Your task to perform on an android device: toggle notifications settings in the gmail app Image 0: 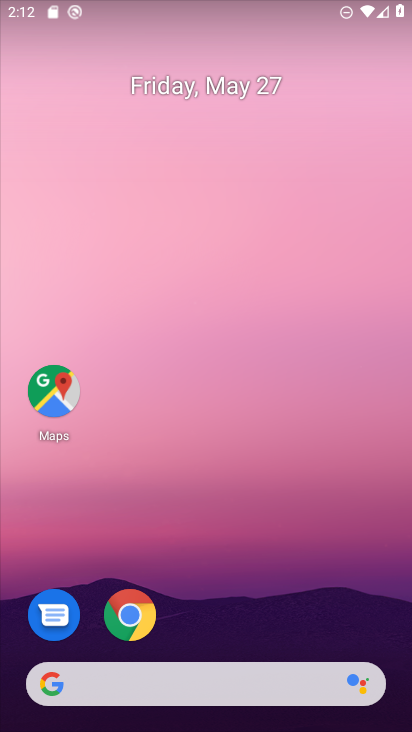
Step 0: drag from (181, 544) to (247, 183)
Your task to perform on an android device: toggle notifications settings in the gmail app Image 1: 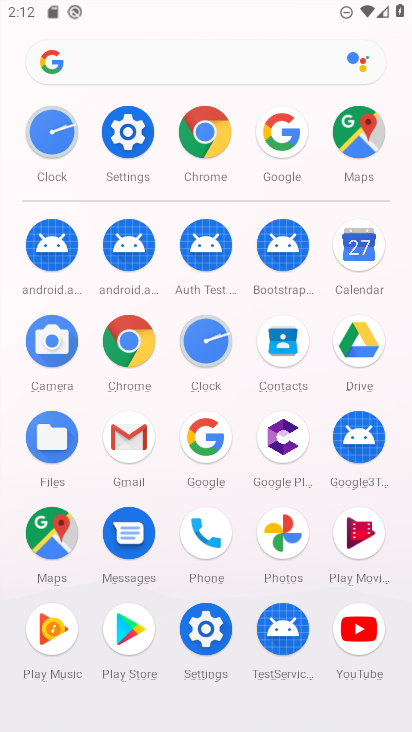
Step 1: click (120, 448)
Your task to perform on an android device: toggle notifications settings in the gmail app Image 2: 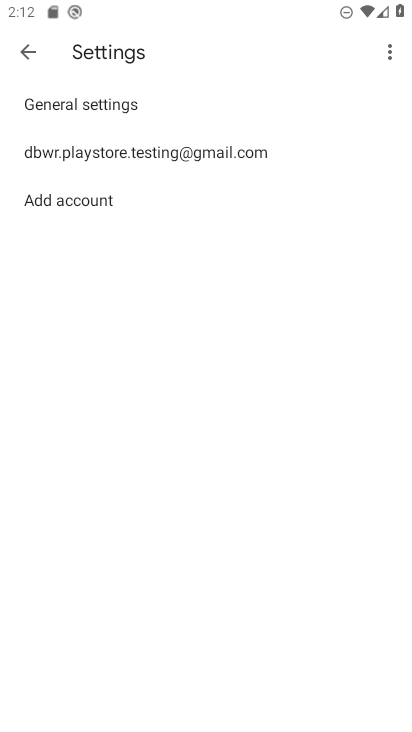
Step 2: click (179, 152)
Your task to perform on an android device: toggle notifications settings in the gmail app Image 3: 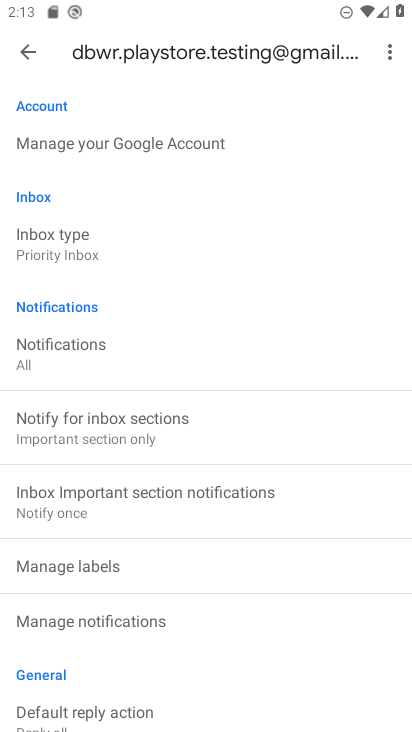
Step 3: click (166, 626)
Your task to perform on an android device: toggle notifications settings in the gmail app Image 4: 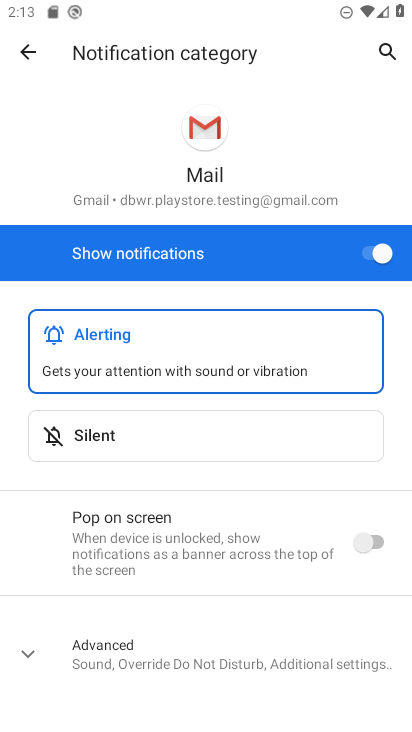
Step 4: drag from (310, 533) to (310, 312)
Your task to perform on an android device: toggle notifications settings in the gmail app Image 5: 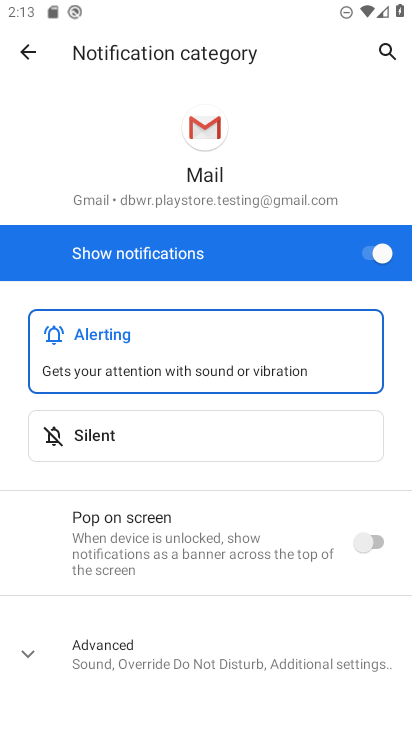
Step 5: drag from (215, 492) to (251, 173)
Your task to perform on an android device: toggle notifications settings in the gmail app Image 6: 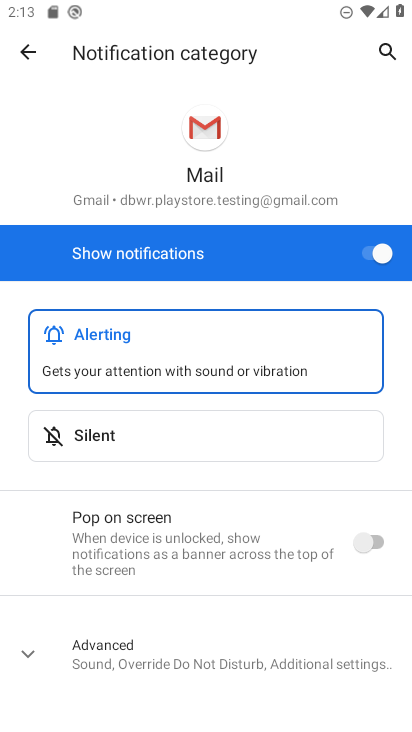
Step 6: click (379, 252)
Your task to perform on an android device: toggle notifications settings in the gmail app Image 7: 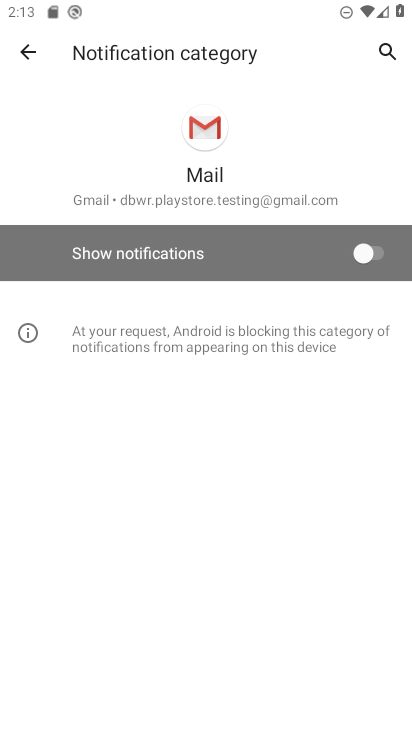
Step 7: task complete